Your task to perform on an android device: change text size in settings app Image 0: 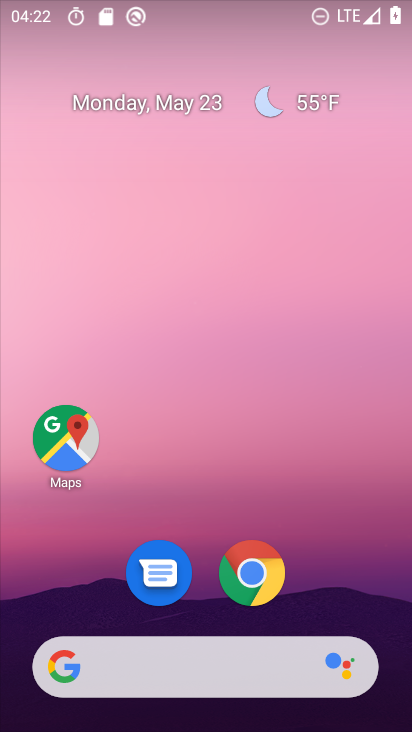
Step 0: drag from (336, 564) to (260, 44)
Your task to perform on an android device: change text size in settings app Image 1: 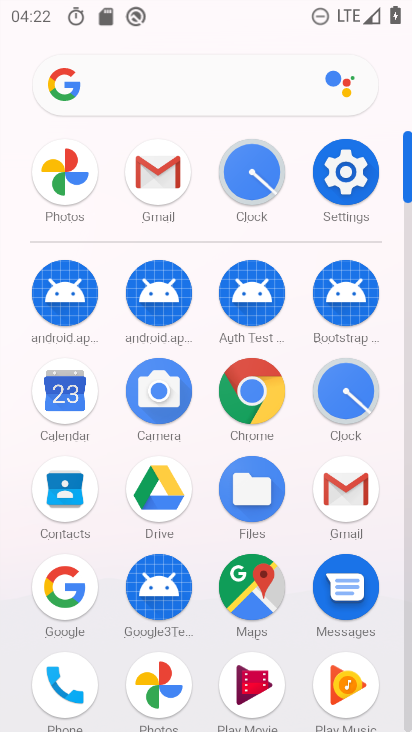
Step 1: click (339, 181)
Your task to perform on an android device: change text size in settings app Image 2: 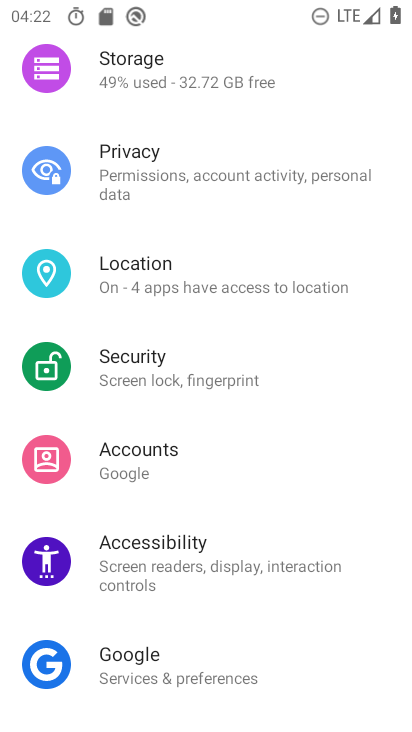
Step 2: drag from (228, 230) to (270, 514)
Your task to perform on an android device: change text size in settings app Image 3: 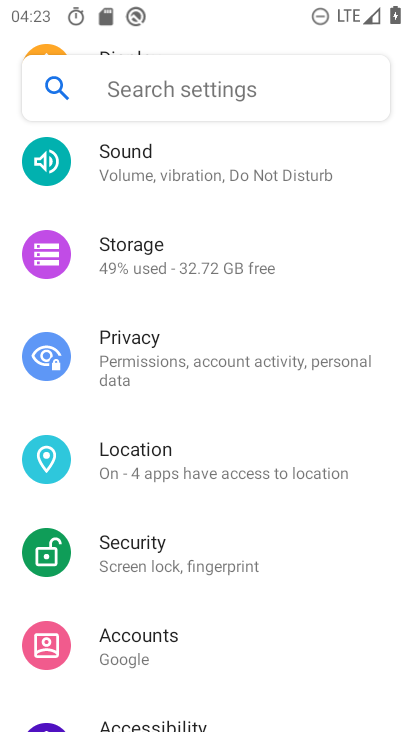
Step 3: drag from (303, 214) to (233, 519)
Your task to perform on an android device: change text size in settings app Image 4: 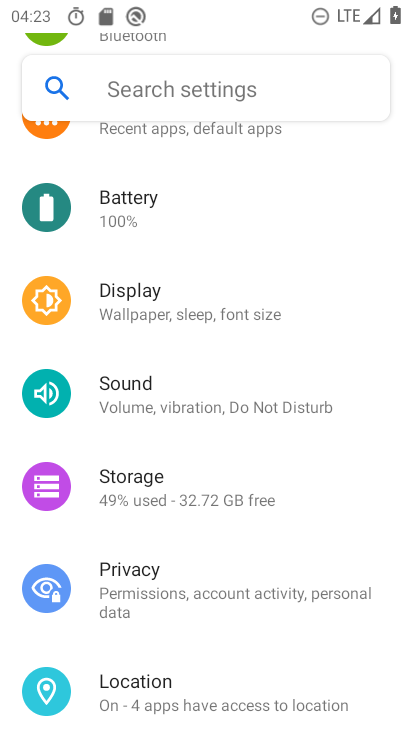
Step 4: click (185, 313)
Your task to perform on an android device: change text size in settings app Image 5: 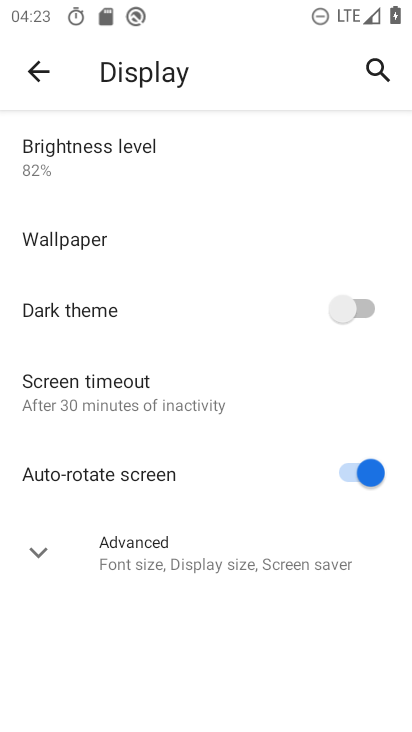
Step 5: click (183, 551)
Your task to perform on an android device: change text size in settings app Image 6: 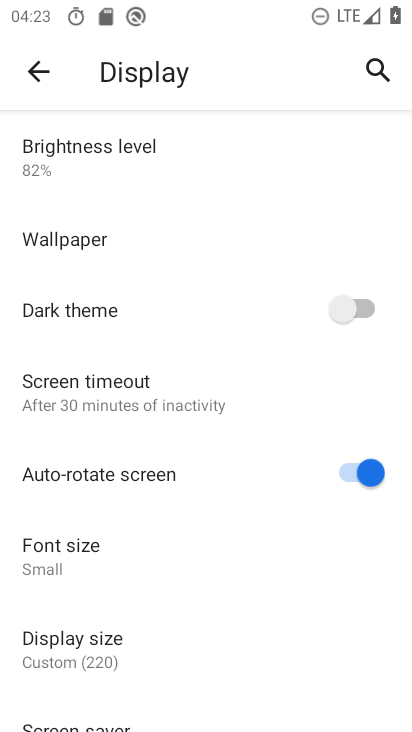
Step 6: click (87, 546)
Your task to perform on an android device: change text size in settings app Image 7: 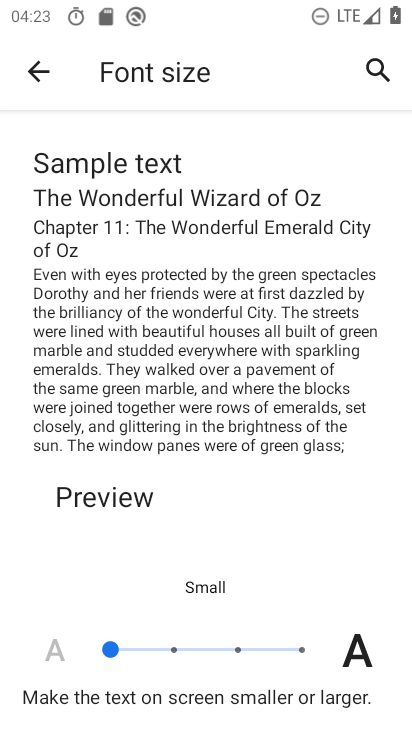
Step 7: click (175, 643)
Your task to perform on an android device: change text size in settings app Image 8: 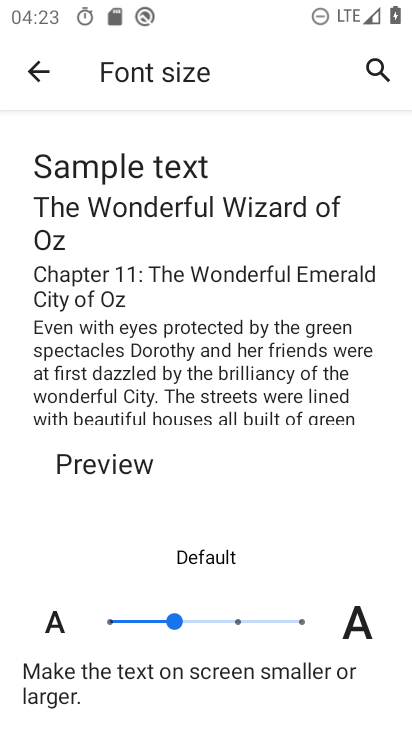
Step 8: task complete